Your task to perform on an android device: show emergency info Image 0: 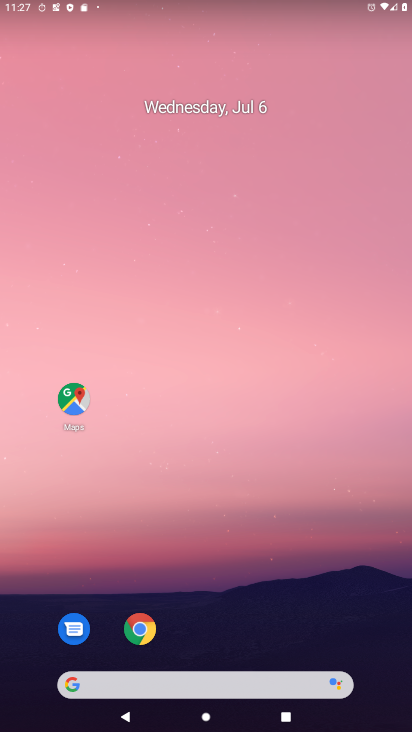
Step 0: drag from (191, 651) to (181, 45)
Your task to perform on an android device: show emergency info Image 1: 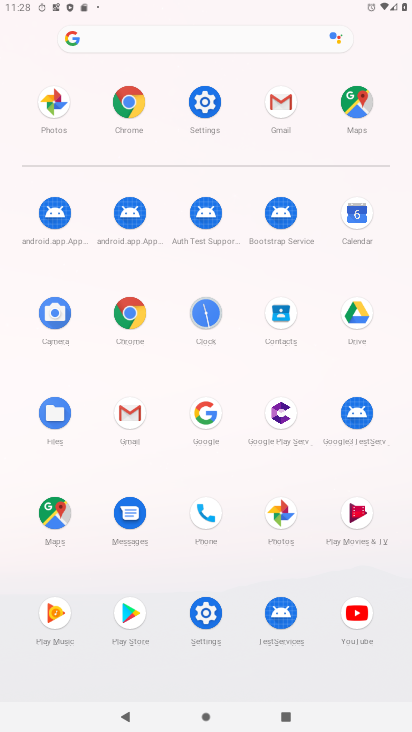
Step 1: click (195, 98)
Your task to perform on an android device: show emergency info Image 2: 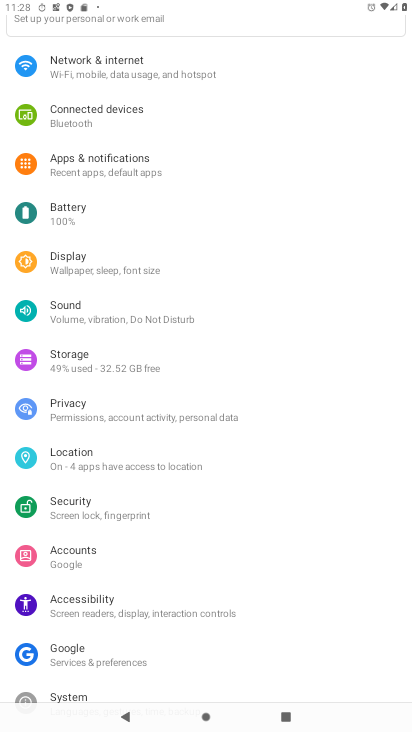
Step 2: drag from (193, 632) to (187, 179)
Your task to perform on an android device: show emergency info Image 3: 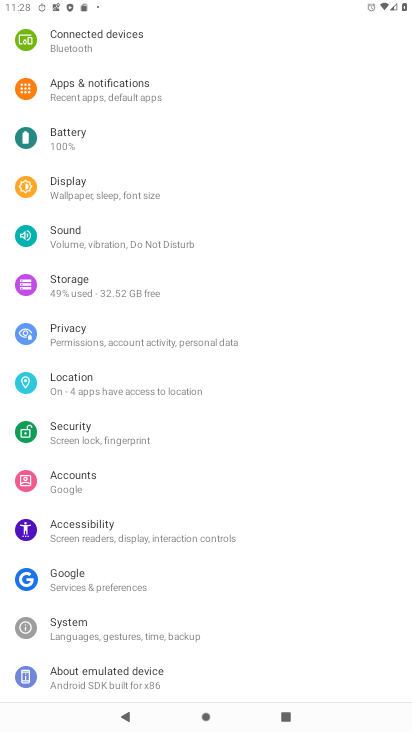
Step 3: click (127, 681)
Your task to perform on an android device: show emergency info Image 4: 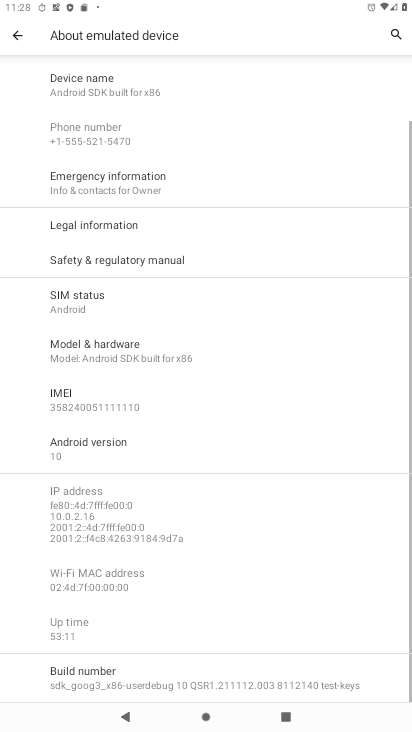
Step 4: click (99, 177)
Your task to perform on an android device: show emergency info Image 5: 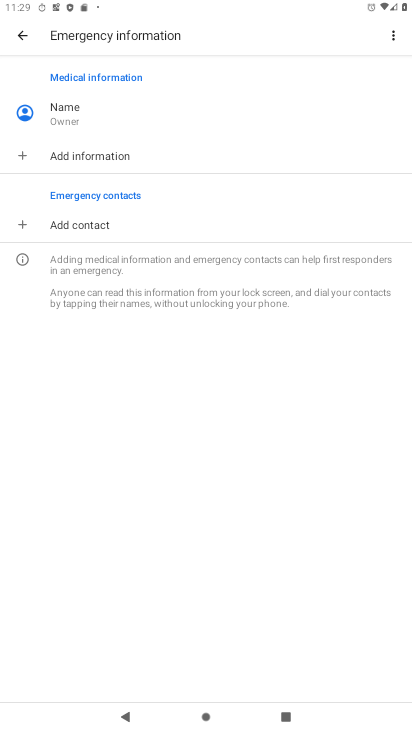
Step 5: task complete